Your task to perform on an android device: empty trash in google photos Image 0: 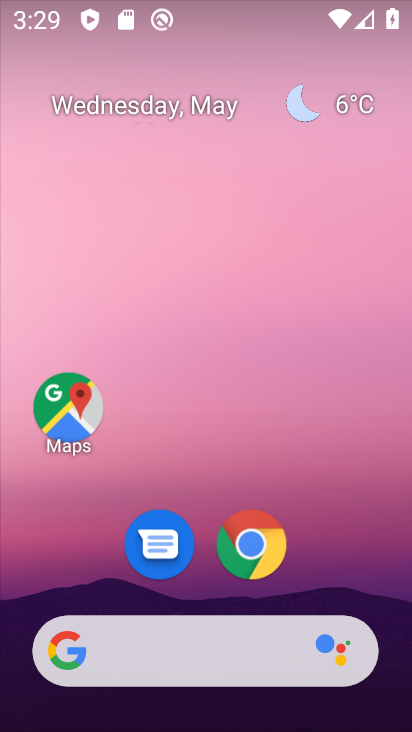
Step 0: drag from (0, 640) to (357, 152)
Your task to perform on an android device: empty trash in google photos Image 1: 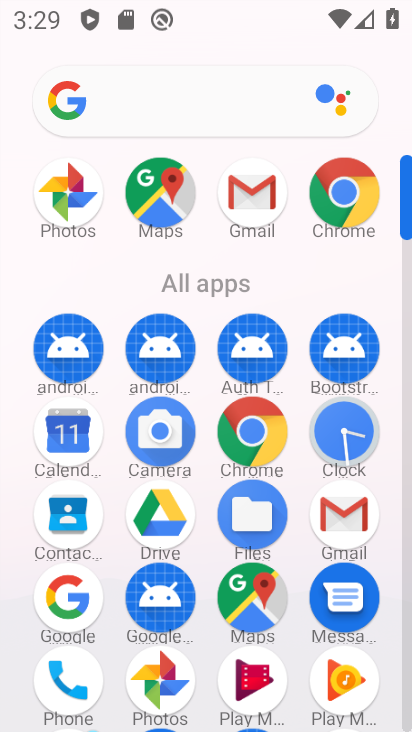
Step 1: click (155, 666)
Your task to perform on an android device: empty trash in google photos Image 2: 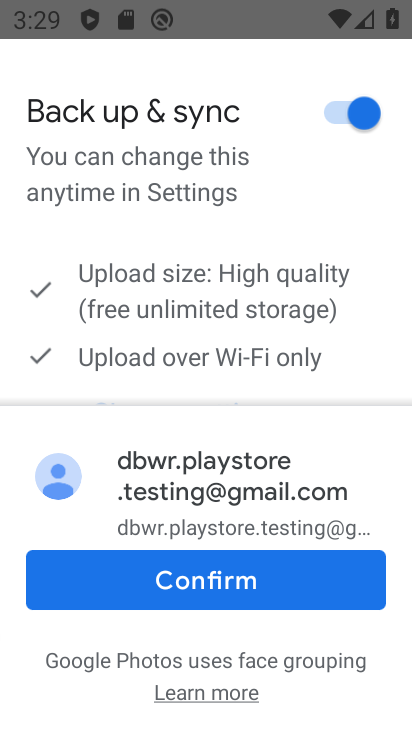
Step 2: click (140, 569)
Your task to perform on an android device: empty trash in google photos Image 3: 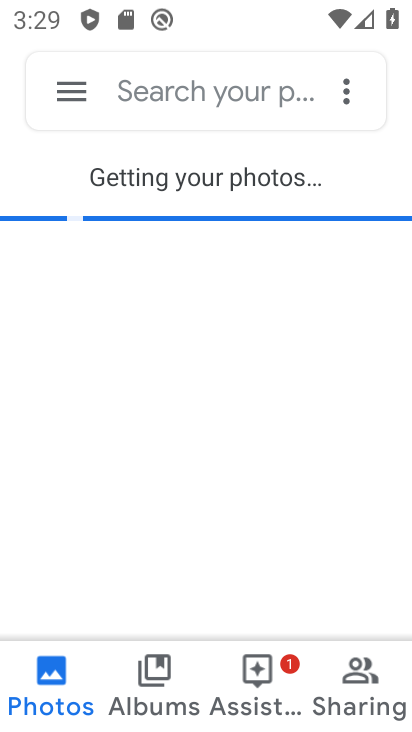
Step 3: click (78, 98)
Your task to perform on an android device: empty trash in google photos Image 4: 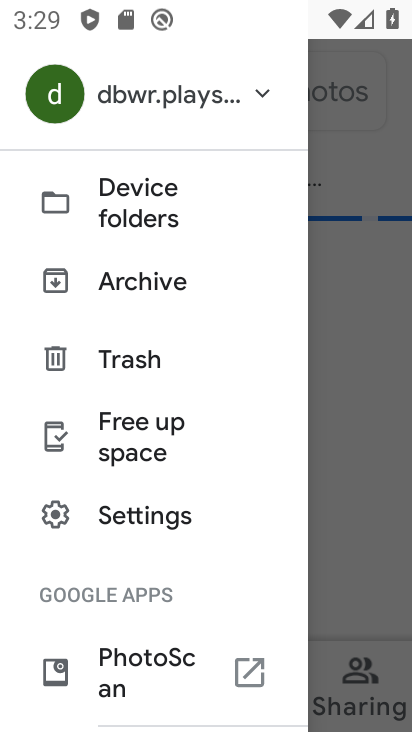
Step 4: click (136, 356)
Your task to perform on an android device: empty trash in google photos Image 5: 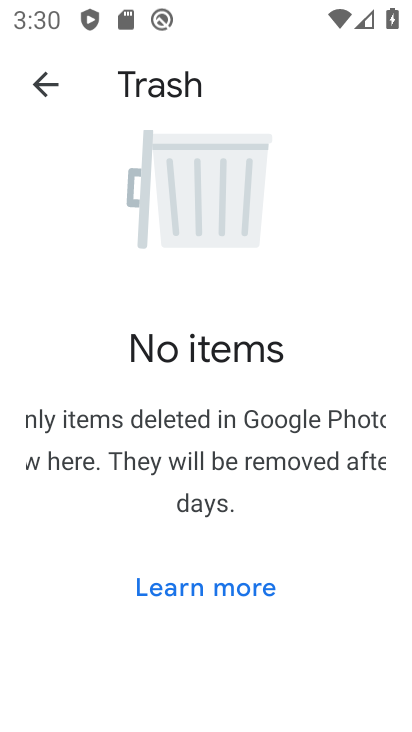
Step 5: task complete